Your task to perform on an android device: turn on sleep mode Image 0: 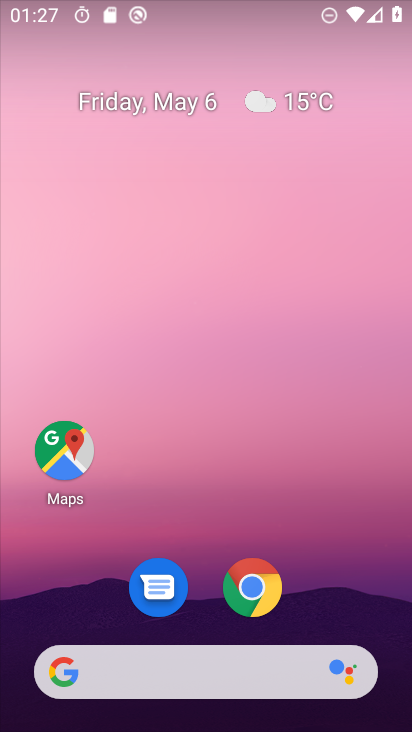
Step 0: click (291, 318)
Your task to perform on an android device: turn on sleep mode Image 1: 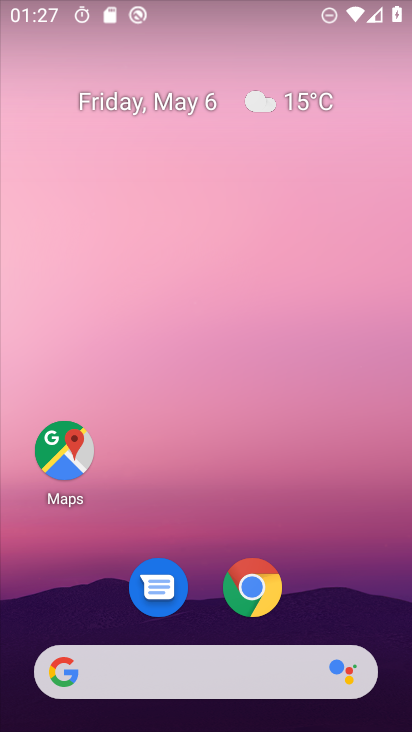
Step 1: drag from (370, 665) to (315, 333)
Your task to perform on an android device: turn on sleep mode Image 2: 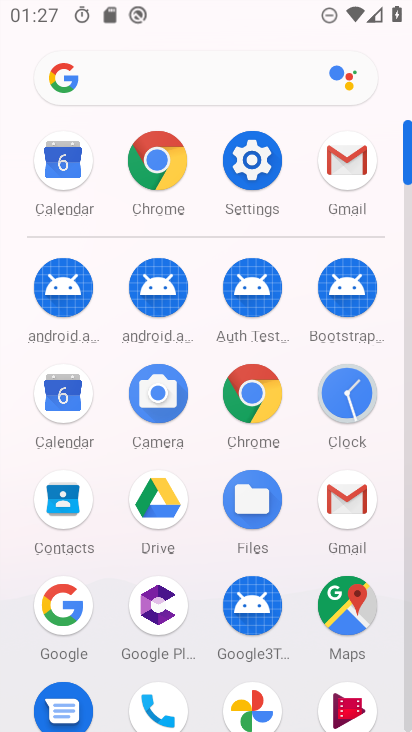
Step 2: click (252, 161)
Your task to perform on an android device: turn on sleep mode Image 3: 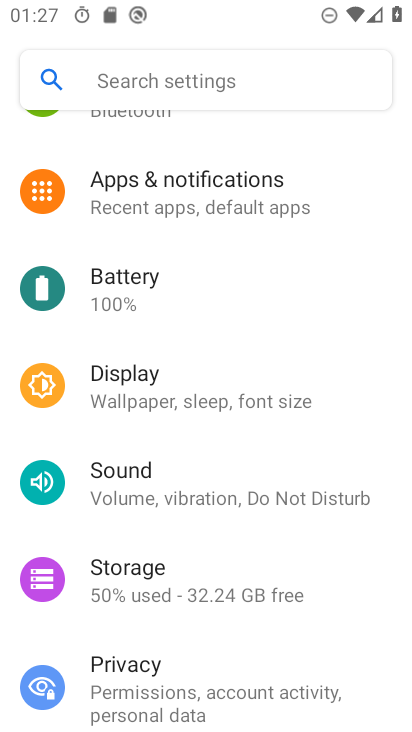
Step 3: click (196, 408)
Your task to perform on an android device: turn on sleep mode Image 4: 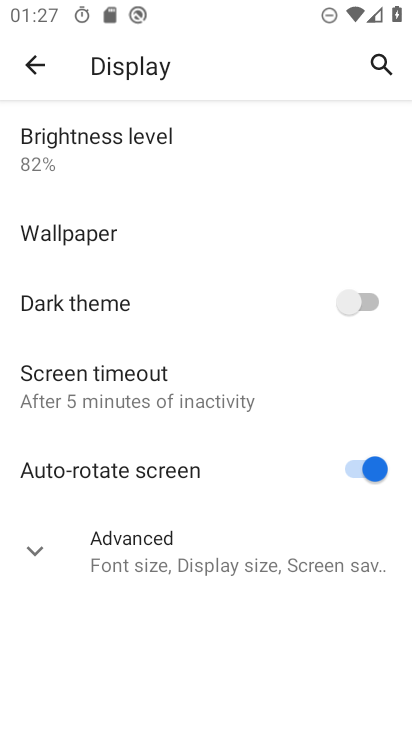
Step 4: click (180, 400)
Your task to perform on an android device: turn on sleep mode Image 5: 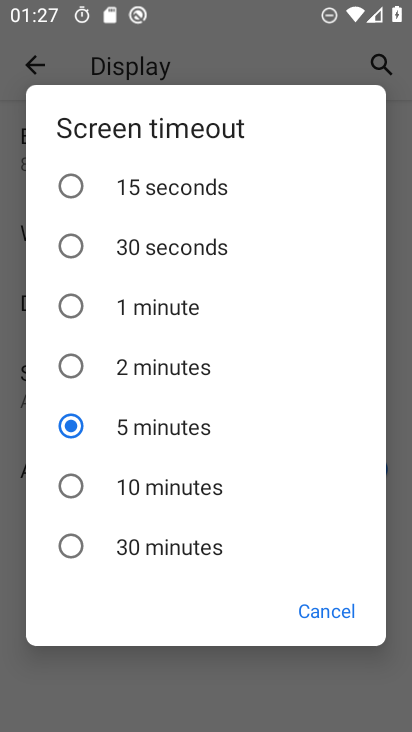
Step 5: task complete